Your task to perform on an android device: Go to Amazon Image 0: 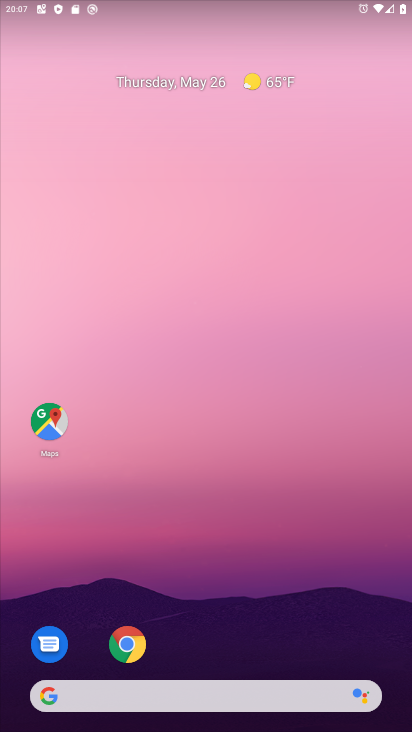
Step 0: drag from (217, 565) to (220, 308)
Your task to perform on an android device: Go to Amazon Image 1: 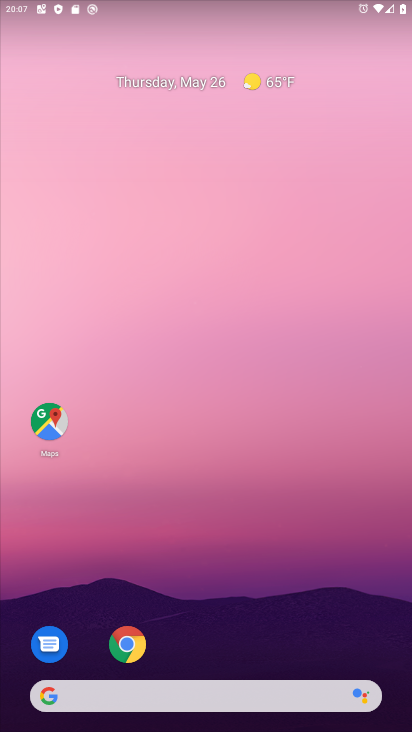
Step 1: drag from (185, 652) to (222, 213)
Your task to perform on an android device: Go to Amazon Image 2: 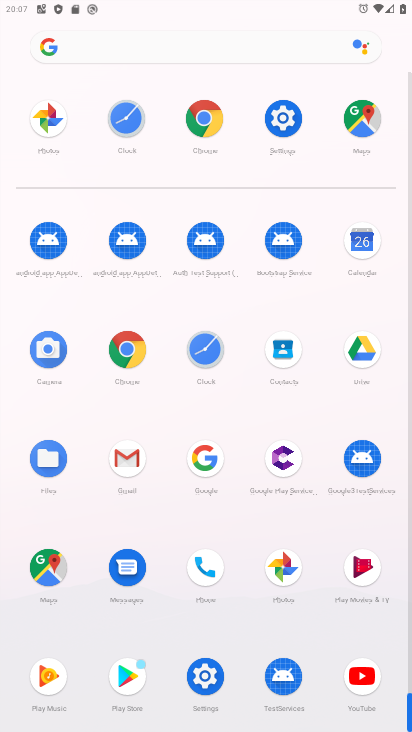
Step 2: drag from (174, 624) to (172, 93)
Your task to perform on an android device: Go to Amazon Image 3: 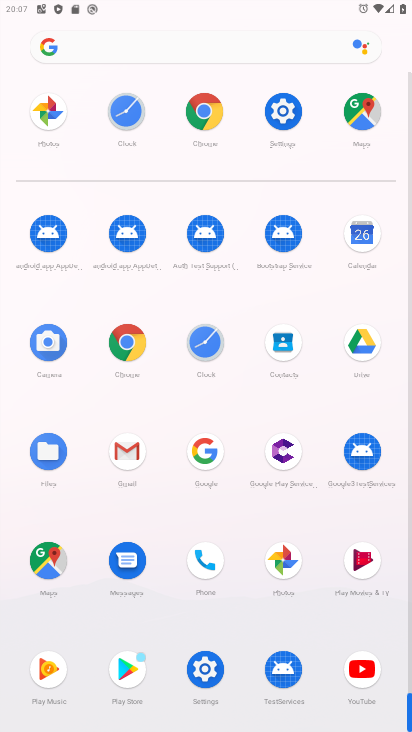
Step 3: click (134, 328)
Your task to perform on an android device: Go to Amazon Image 4: 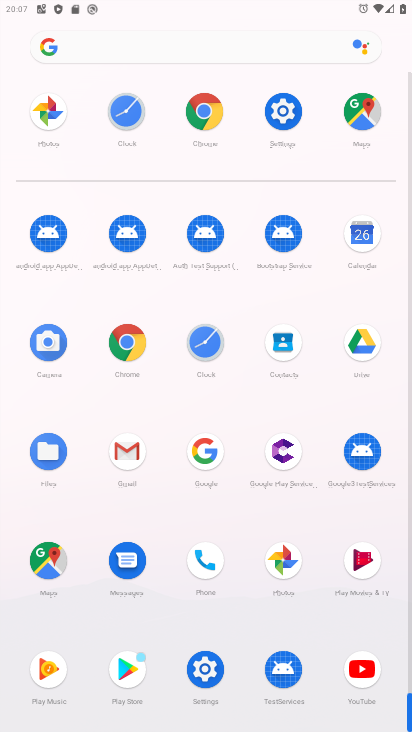
Step 4: click (134, 328)
Your task to perform on an android device: Go to Amazon Image 5: 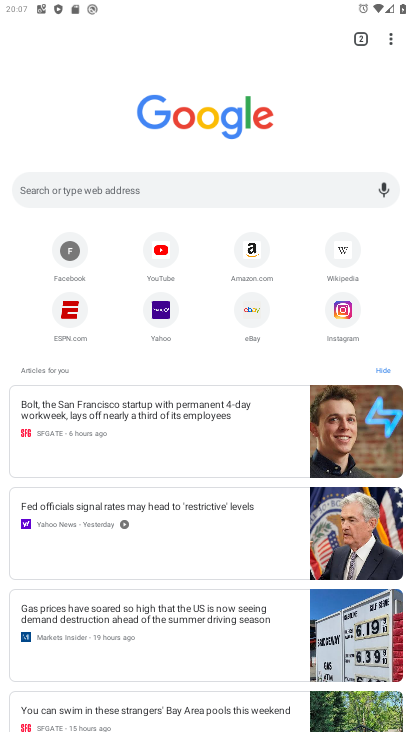
Step 5: click (263, 245)
Your task to perform on an android device: Go to Amazon Image 6: 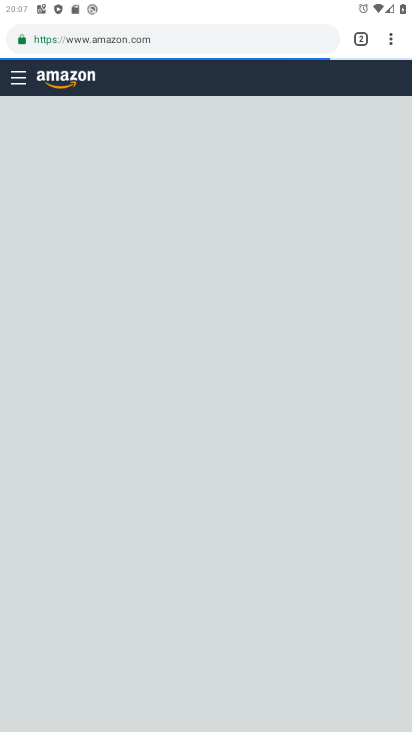
Step 6: task complete